Your task to perform on an android device: all mails in gmail Image 0: 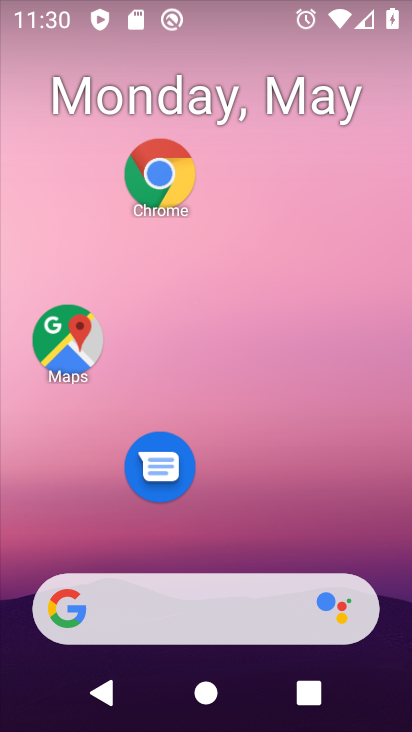
Step 0: drag from (306, 493) to (259, 3)
Your task to perform on an android device: all mails in gmail Image 1: 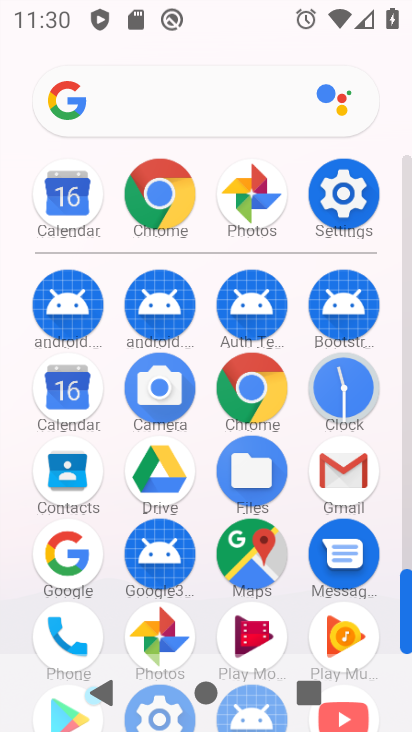
Step 1: click (342, 461)
Your task to perform on an android device: all mails in gmail Image 2: 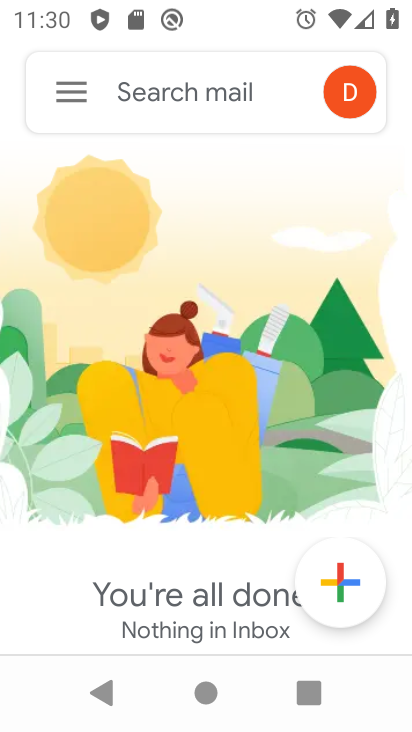
Step 2: click (87, 110)
Your task to perform on an android device: all mails in gmail Image 3: 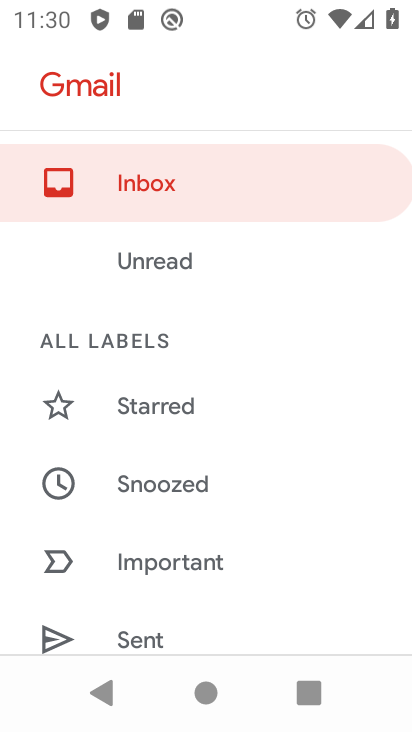
Step 3: drag from (76, 527) to (71, 320)
Your task to perform on an android device: all mails in gmail Image 4: 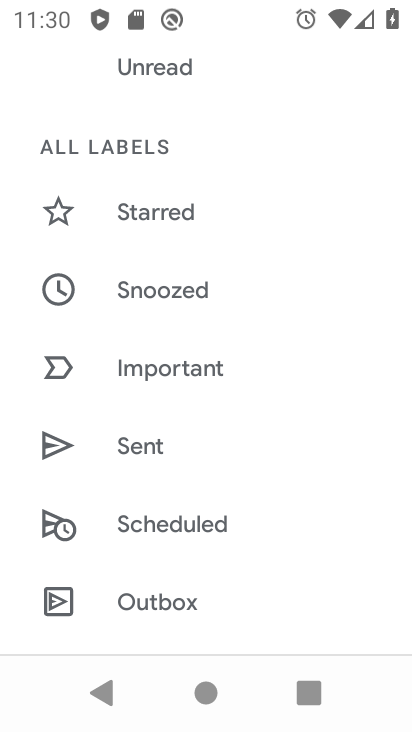
Step 4: drag from (174, 611) to (144, 389)
Your task to perform on an android device: all mails in gmail Image 5: 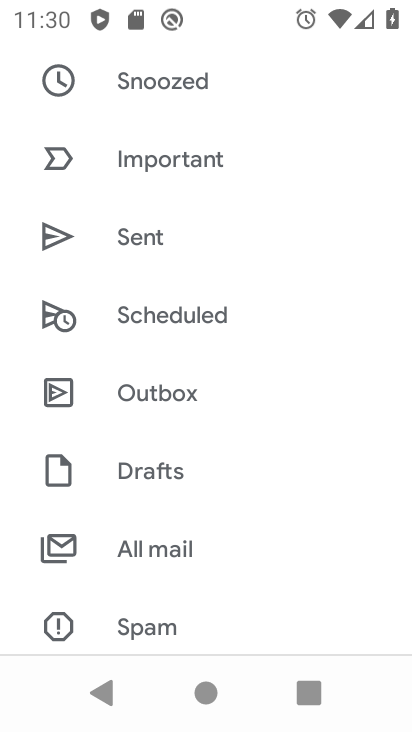
Step 5: click (213, 548)
Your task to perform on an android device: all mails in gmail Image 6: 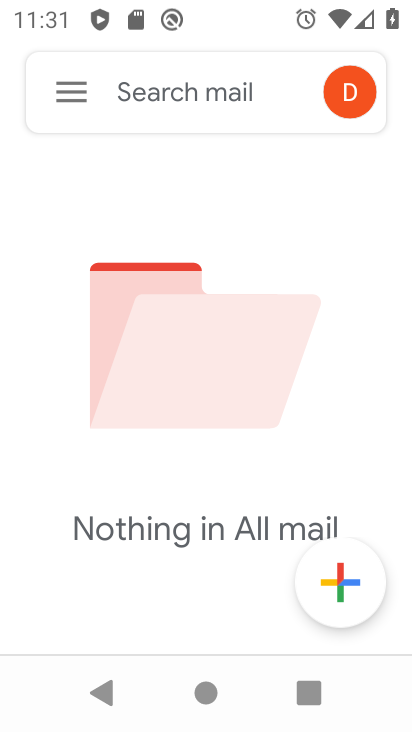
Step 6: task complete